Your task to perform on an android device: turn off picture-in-picture Image 0: 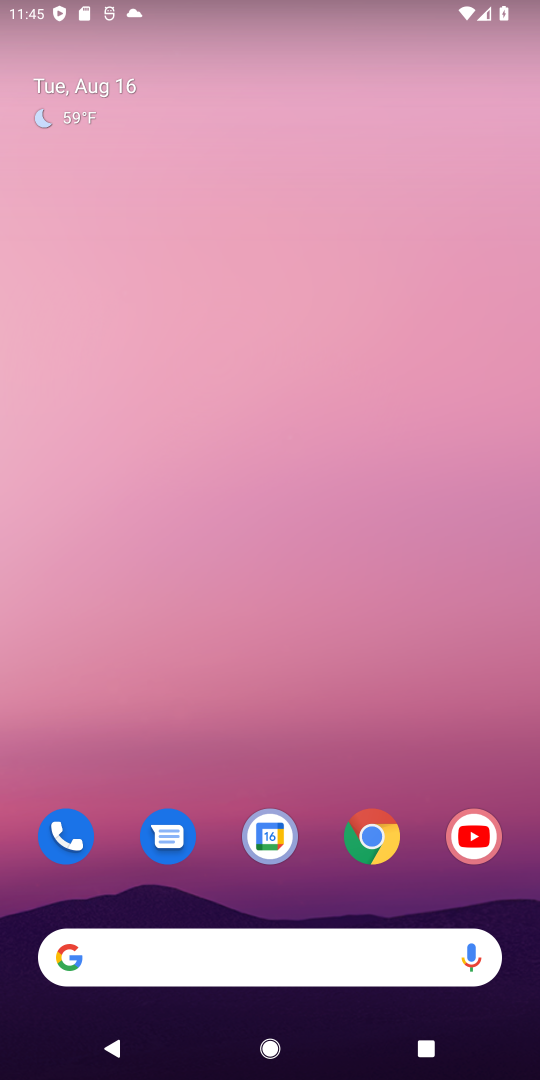
Step 0: click (369, 834)
Your task to perform on an android device: turn off picture-in-picture Image 1: 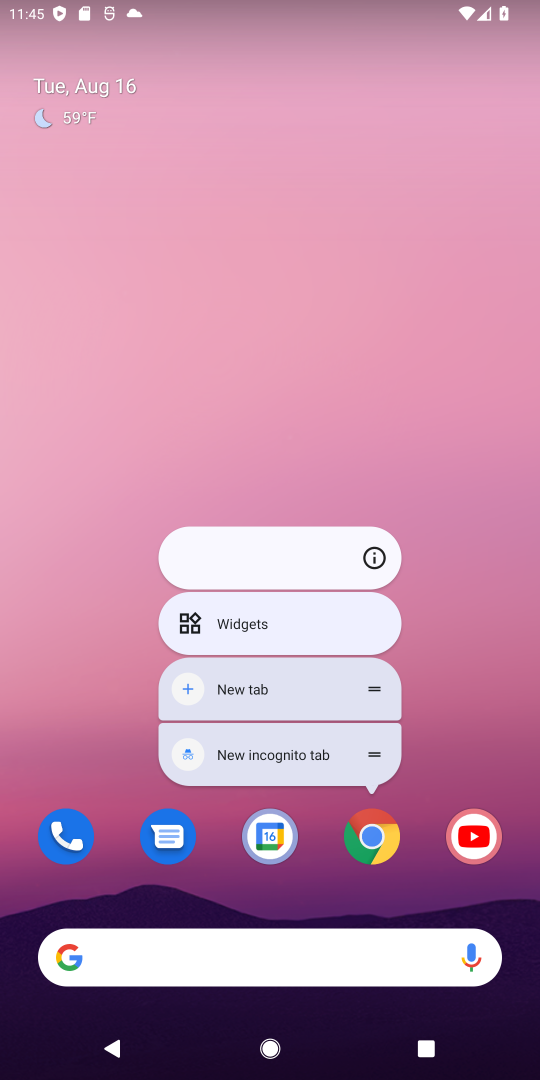
Step 1: click (372, 557)
Your task to perform on an android device: turn off picture-in-picture Image 2: 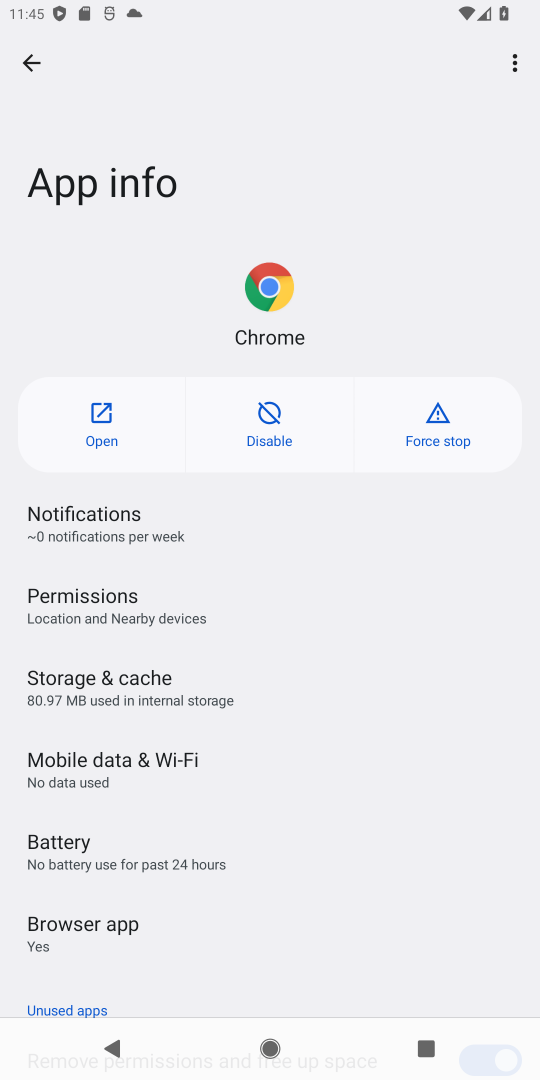
Step 2: drag from (183, 887) to (241, 582)
Your task to perform on an android device: turn off picture-in-picture Image 3: 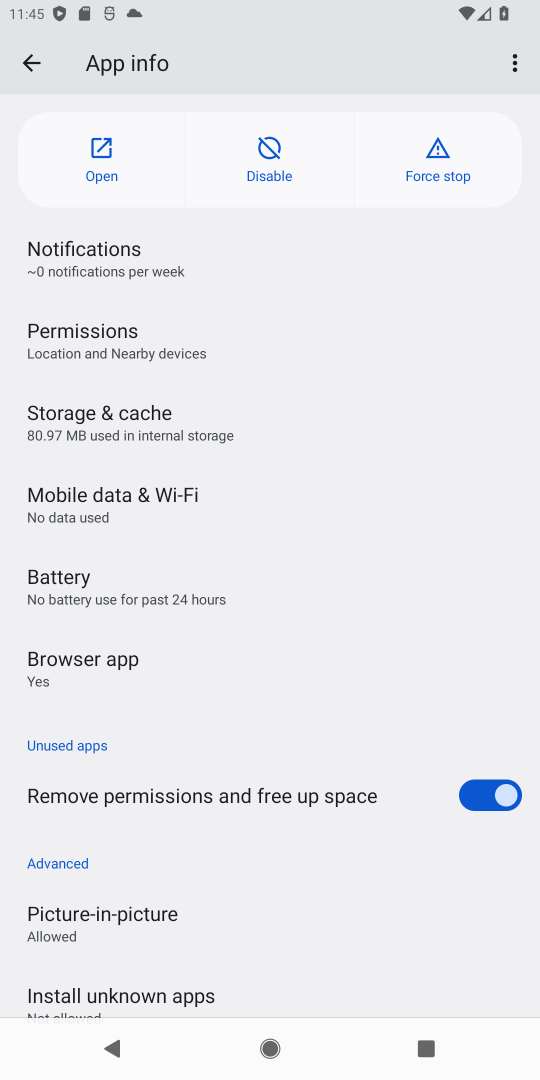
Step 3: drag from (240, 909) to (293, 622)
Your task to perform on an android device: turn off picture-in-picture Image 4: 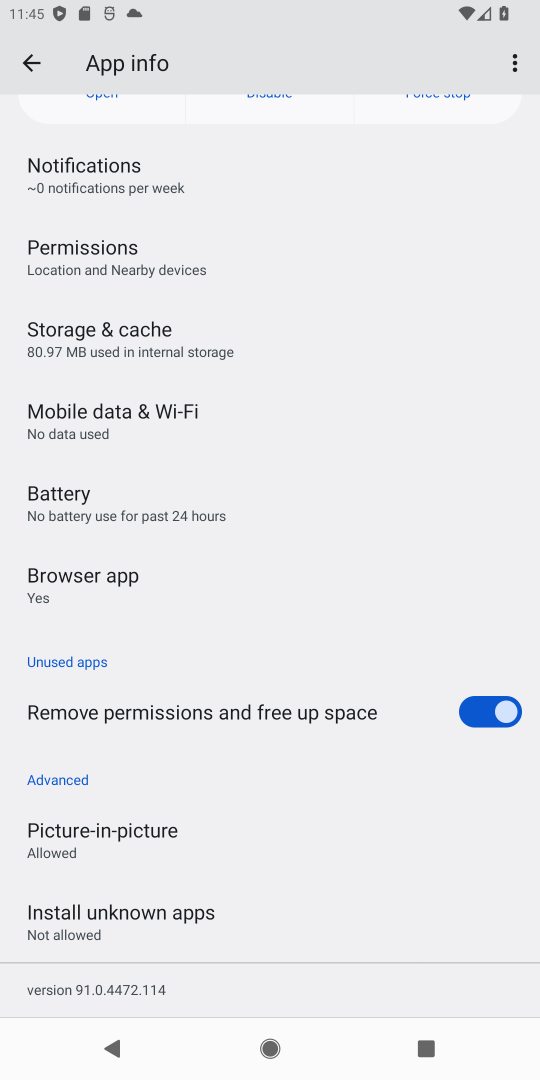
Step 4: click (135, 839)
Your task to perform on an android device: turn off picture-in-picture Image 5: 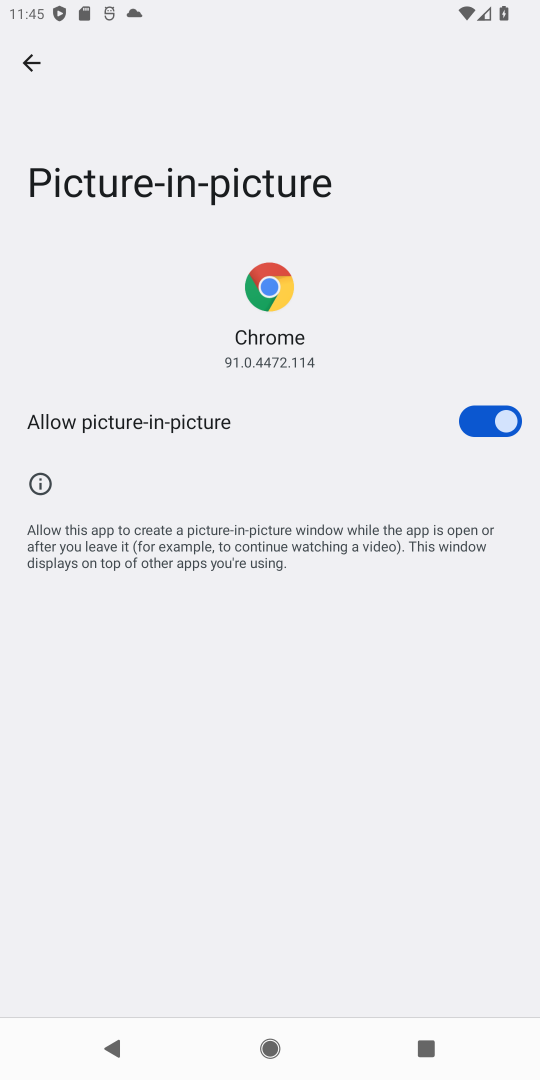
Step 5: click (457, 425)
Your task to perform on an android device: turn off picture-in-picture Image 6: 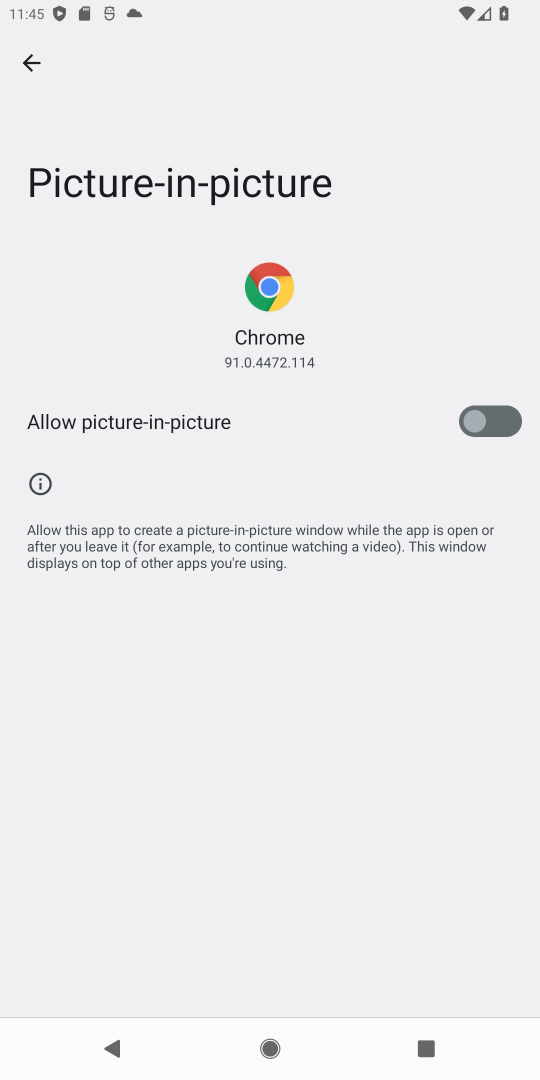
Step 6: task complete